Your task to perform on an android device: Set the phone to "Do not disturb". Image 0: 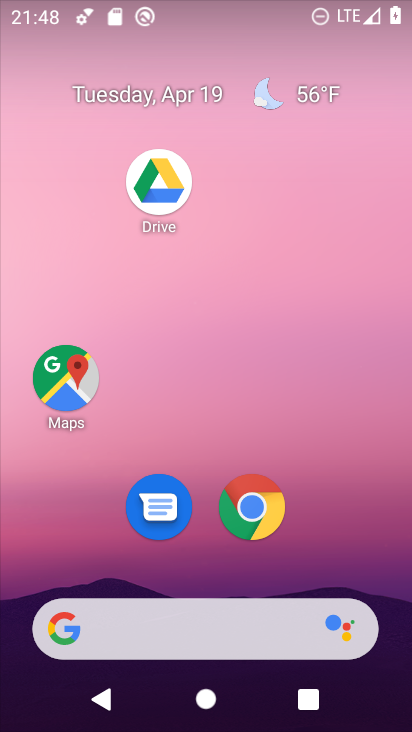
Step 0: drag from (358, 531) to (377, 90)
Your task to perform on an android device: Set the phone to "Do not disturb". Image 1: 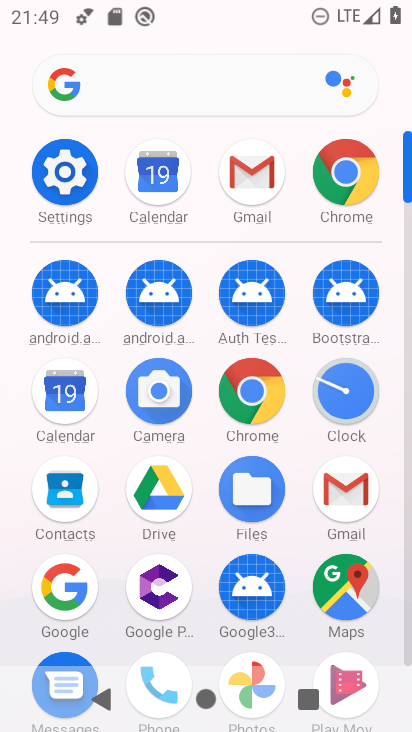
Step 1: click (72, 178)
Your task to perform on an android device: Set the phone to "Do not disturb". Image 2: 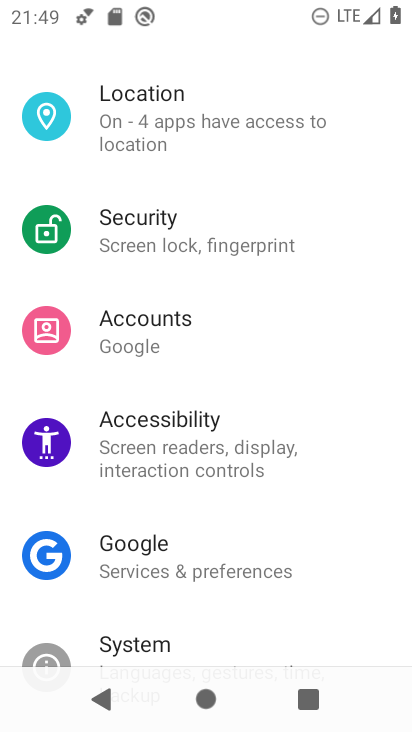
Step 2: drag from (233, 167) to (225, 658)
Your task to perform on an android device: Set the phone to "Do not disturb". Image 3: 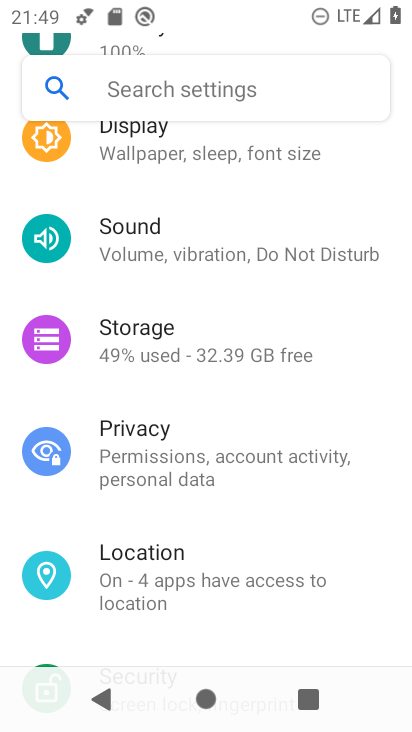
Step 3: click (319, 254)
Your task to perform on an android device: Set the phone to "Do not disturb". Image 4: 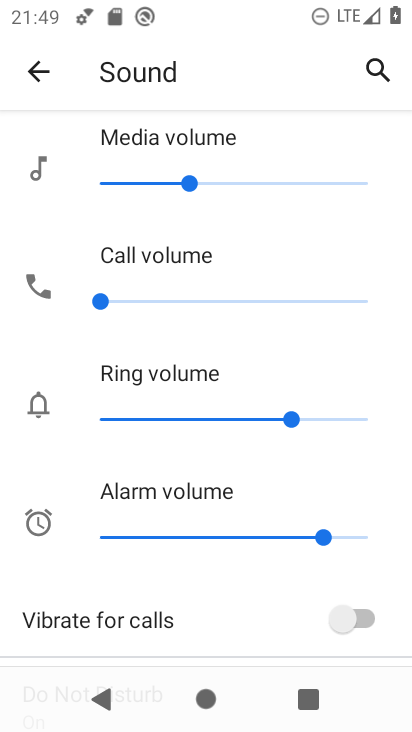
Step 4: task complete